Your task to perform on an android device: What's on my calendar today? Image 0: 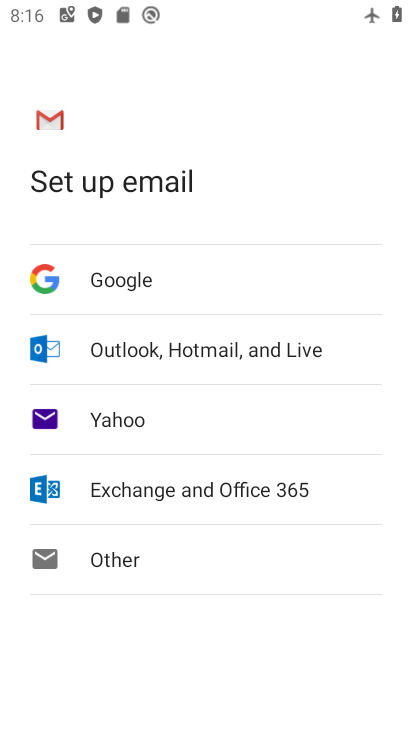
Step 0: press home button
Your task to perform on an android device: What's on my calendar today? Image 1: 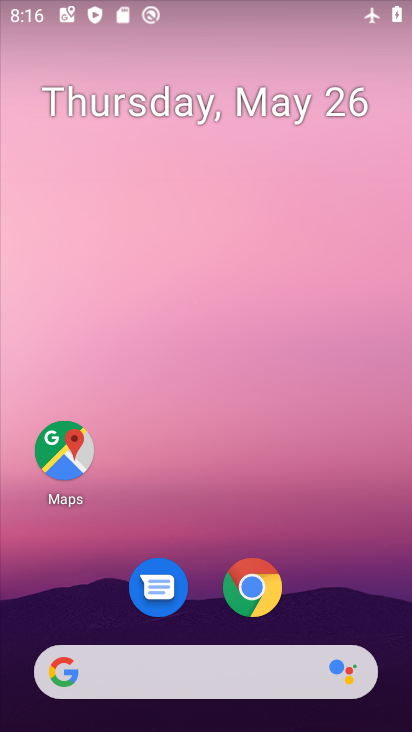
Step 1: drag from (209, 622) to (211, 217)
Your task to perform on an android device: What's on my calendar today? Image 2: 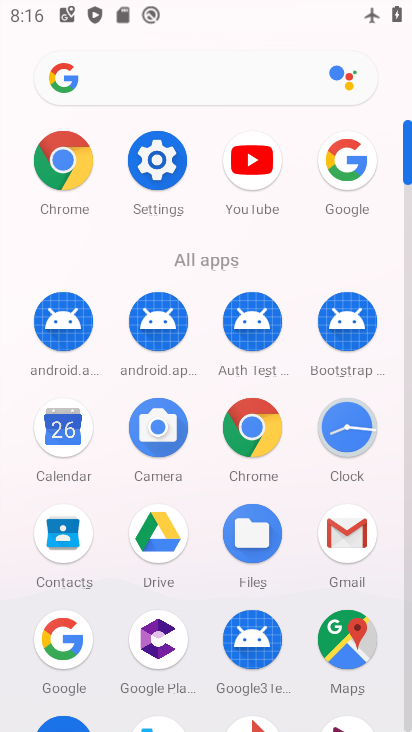
Step 2: click (56, 431)
Your task to perform on an android device: What's on my calendar today? Image 3: 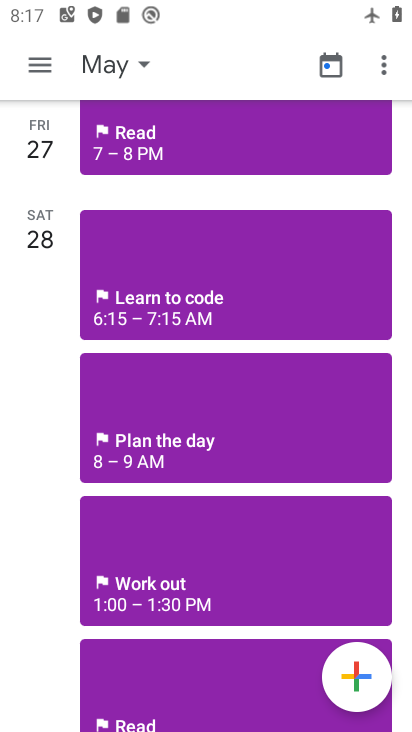
Step 3: click (144, 68)
Your task to perform on an android device: What's on my calendar today? Image 4: 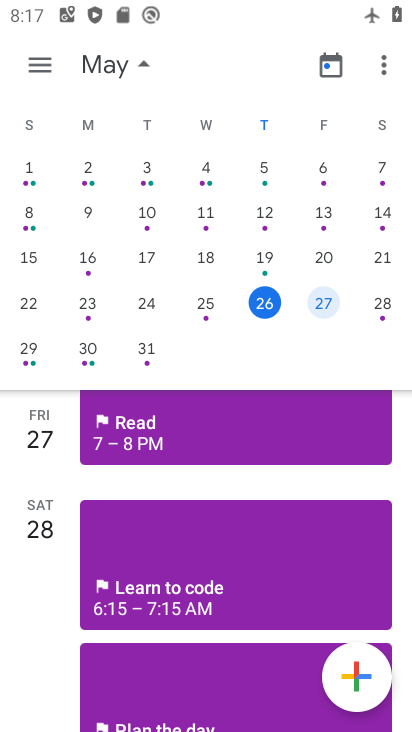
Step 4: click (266, 306)
Your task to perform on an android device: What's on my calendar today? Image 5: 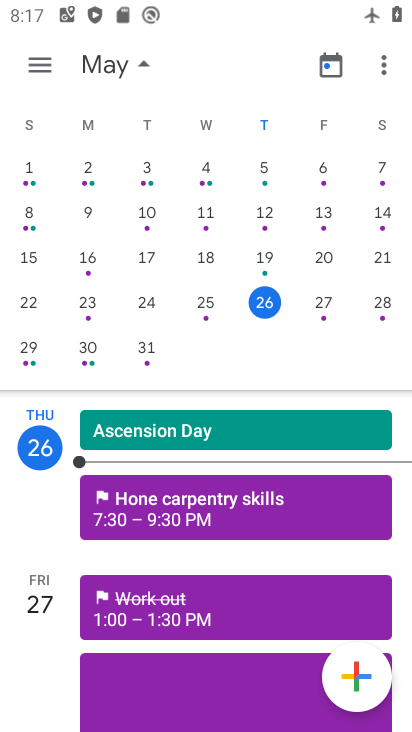
Step 5: task complete